Your task to perform on an android device: Open calendar and show me the fourth week of next month Image 0: 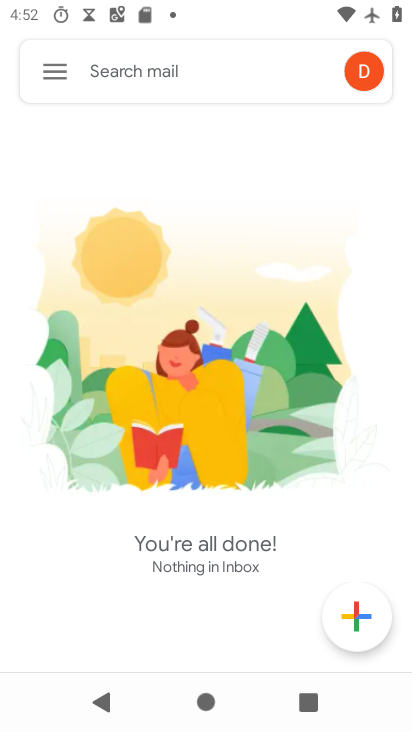
Step 0: press home button
Your task to perform on an android device: Open calendar and show me the fourth week of next month Image 1: 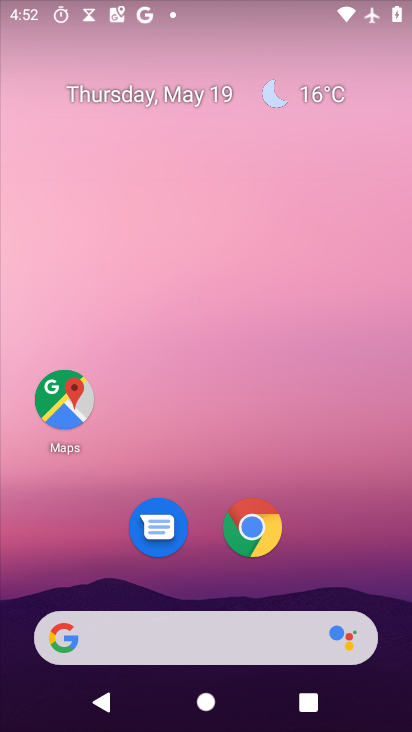
Step 1: click (156, 100)
Your task to perform on an android device: Open calendar and show me the fourth week of next month Image 2: 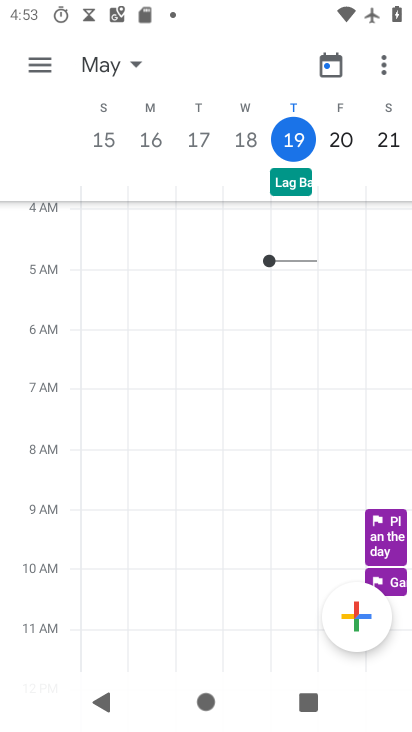
Step 2: click (128, 64)
Your task to perform on an android device: Open calendar and show me the fourth week of next month Image 3: 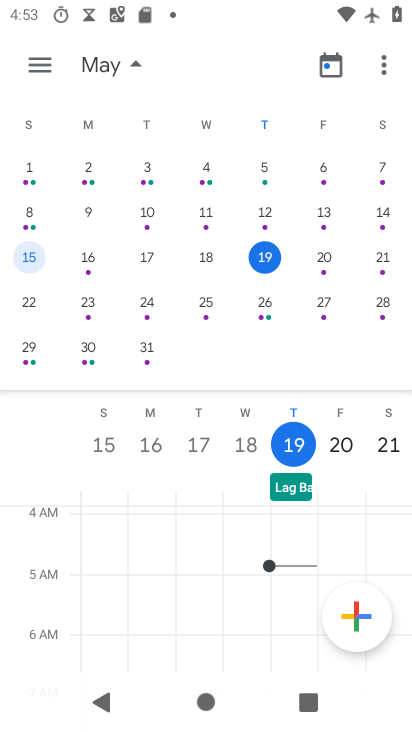
Step 3: drag from (358, 238) to (19, 229)
Your task to perform on an android device: Open calendar and show me the fourth week of next month Image 4: 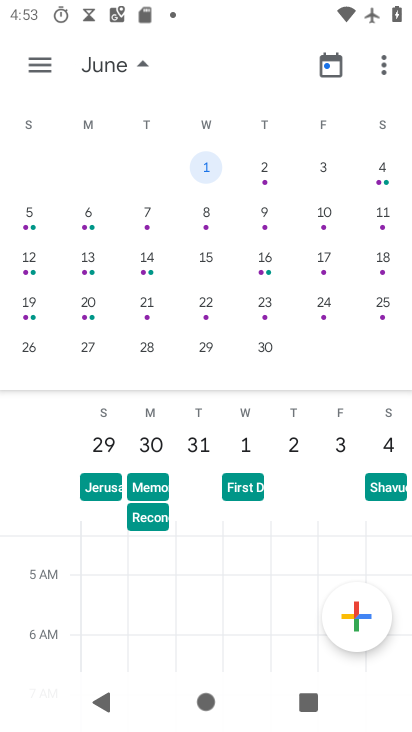
Step 4: click (32, 309)
Your task to perform on an android device: Open calendar and show me the fourth week of next month Image 5: 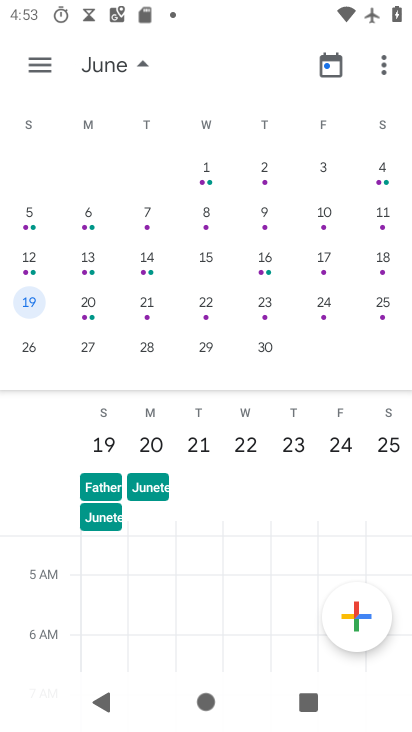
Step 5: task complete